Your task to perform on an android device: check the backup settings in the google photos Image 0: 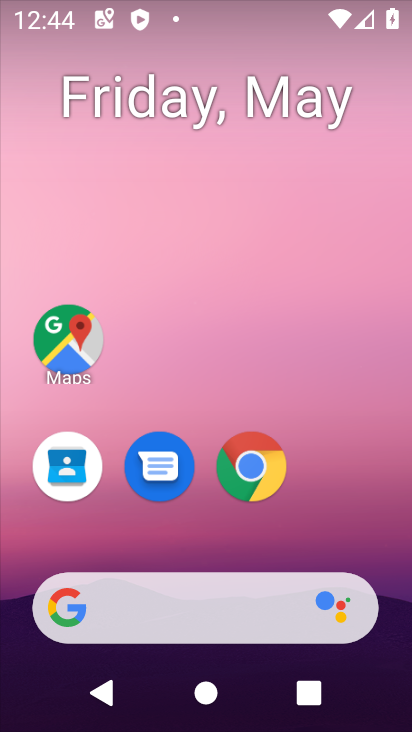
Step 0: drag from (222, 543) to (257, 49)
Your task to perform on an android device: check the backup settings in the google photos Image 1: 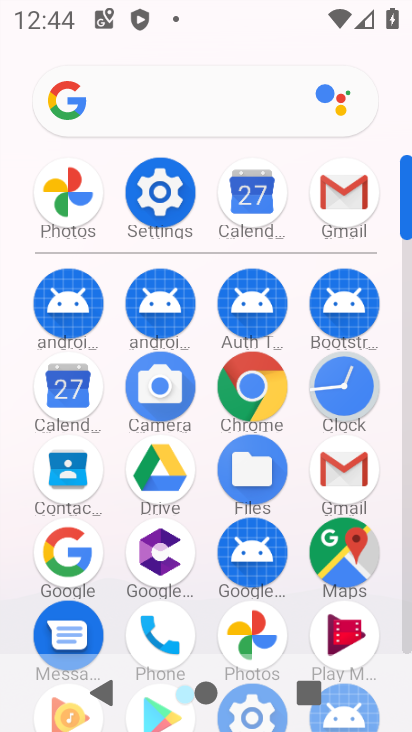
Step 1: click (248, 635)
Your task to perform on an android device: check the backup settings in the google photos Image 2: 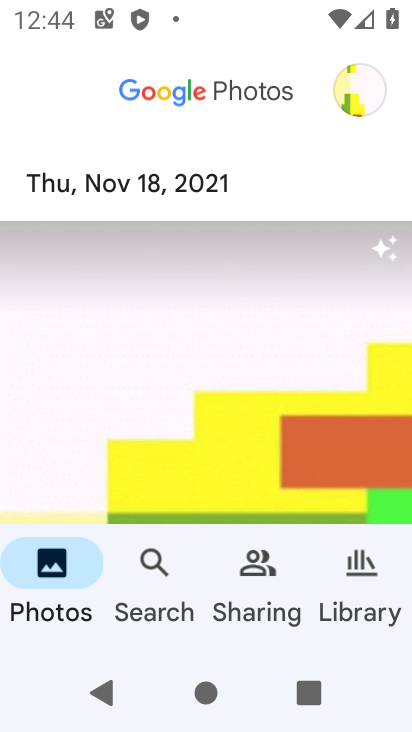
Step 2: click (355, 88)
Your task to perform on an android device: check the backup settings in the google photos Image 3: 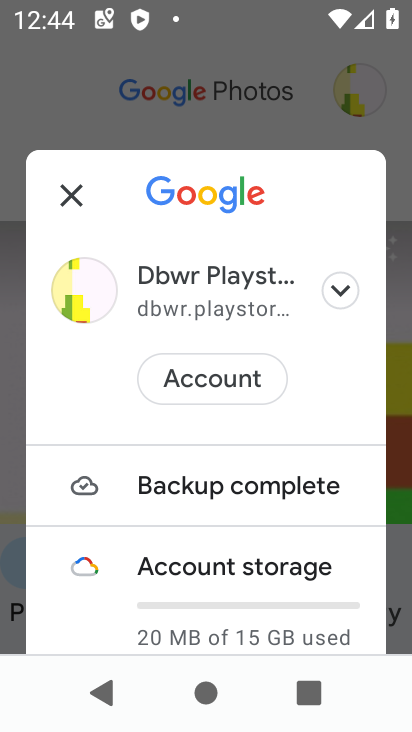
Step 3: drag from (212, 581) to (222, 198)
Your task to perform on an android device: check the backup settings in the google photos Image 4: 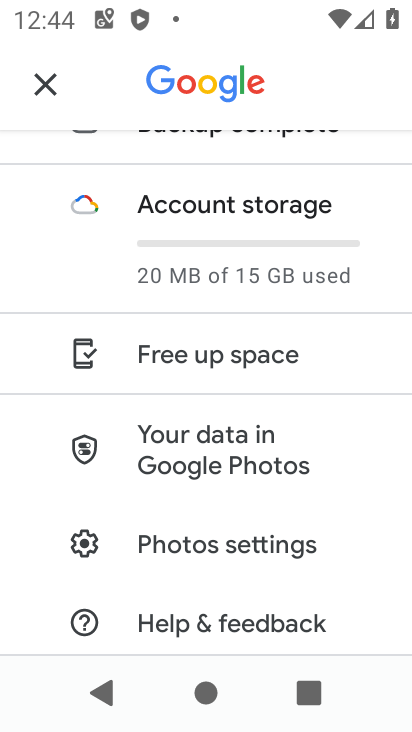
Step 4: click (225, 544)
Your task to perform on an android device: check the backup settings in the google photos Image 5: 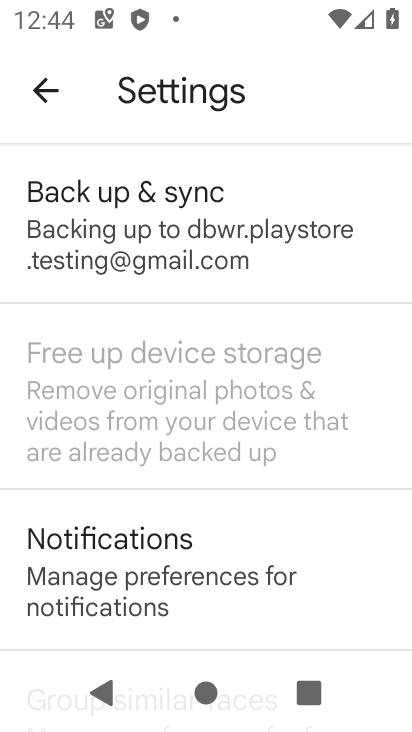
Step 5: click (165, 242)
Your task to perform on an android device: check the backup settings in the google photos Image 6: 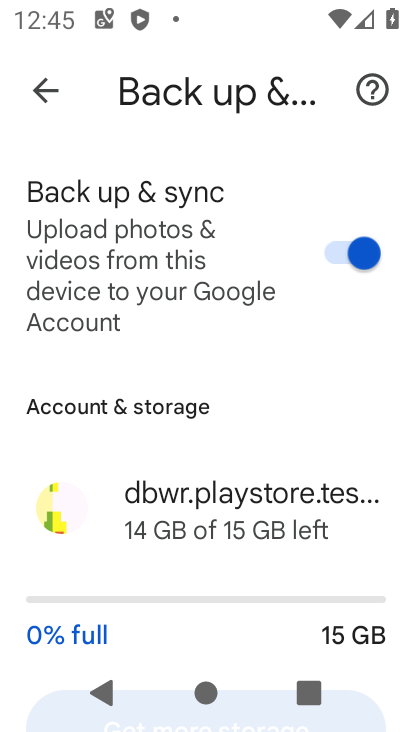
Step 6: task complete